Your task to perform on an android device: Open Chrome and go to settings Image 0: 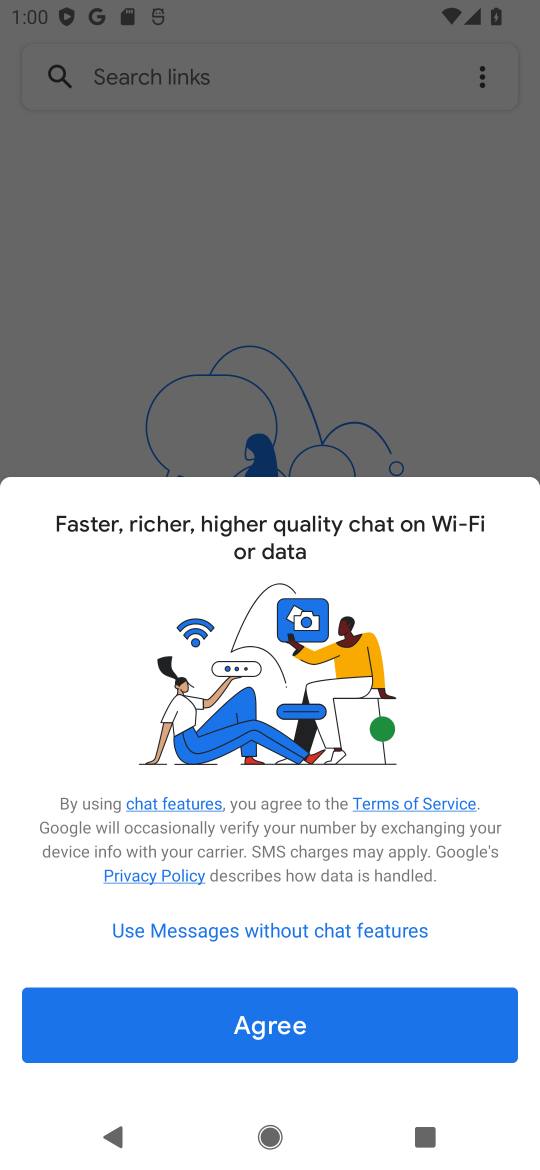
Step 0: press home button
Your task to perform on an android device: Open Chrome and go to settings Image 1: 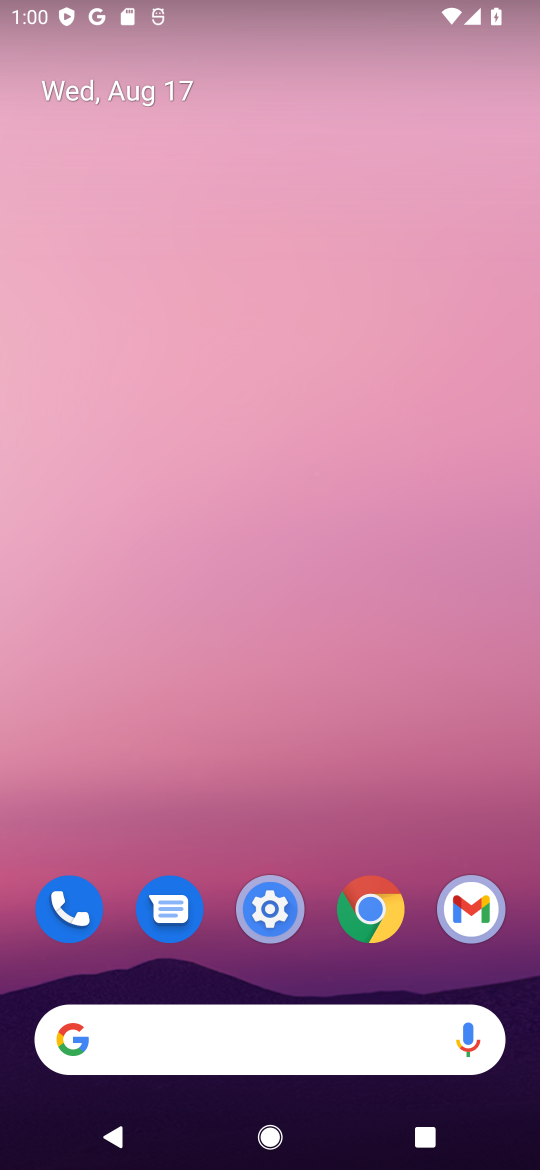
Step 1: click (368, 911)
Your task to perform on an android device: Open Chrome and go to settings Image 2: 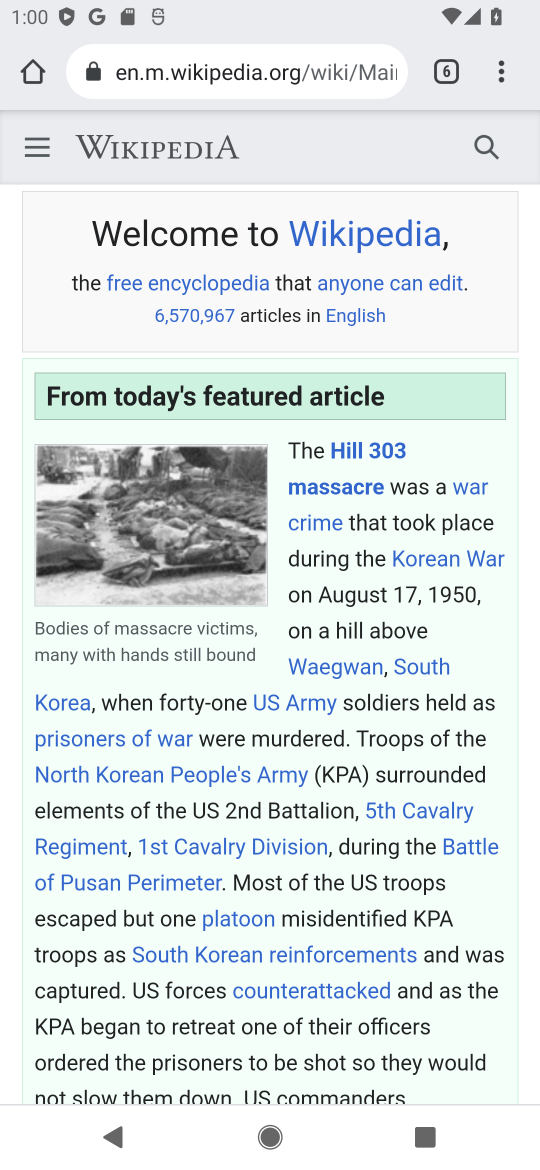
Step 2: click (496, 72)
Your task to perform on an android device: Open Chrome and go to settings Image 3: 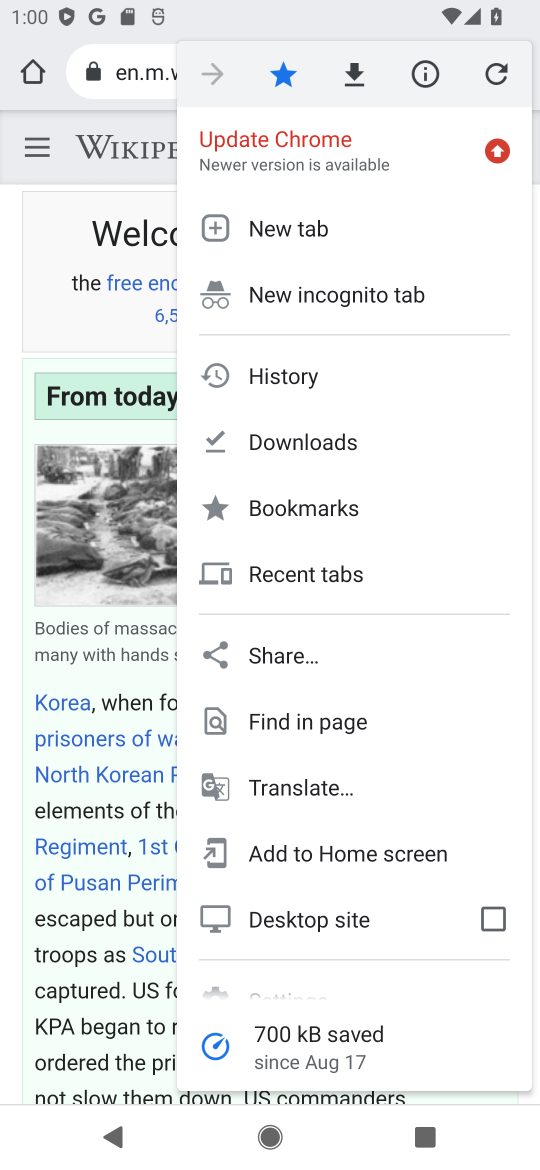
Step 3: drag from (390, 759) to (388, 309)
Your task to perform on an android device: Open Chrome and go to settings Image 4: 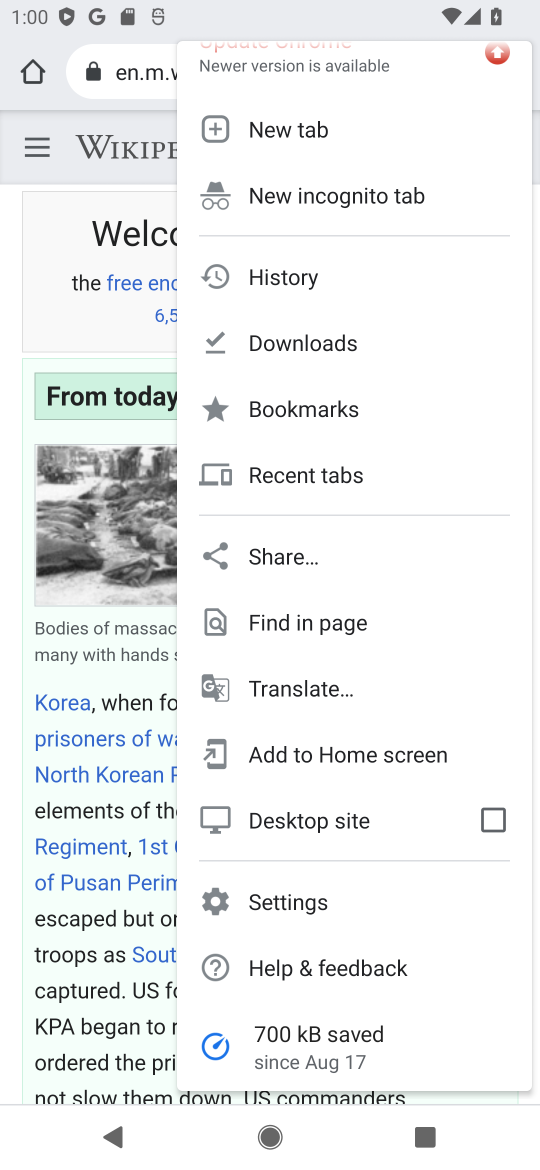
Step 4: click (280, 900)
Your task to perform on an android device: Open Chrome and go to settings Image 5: 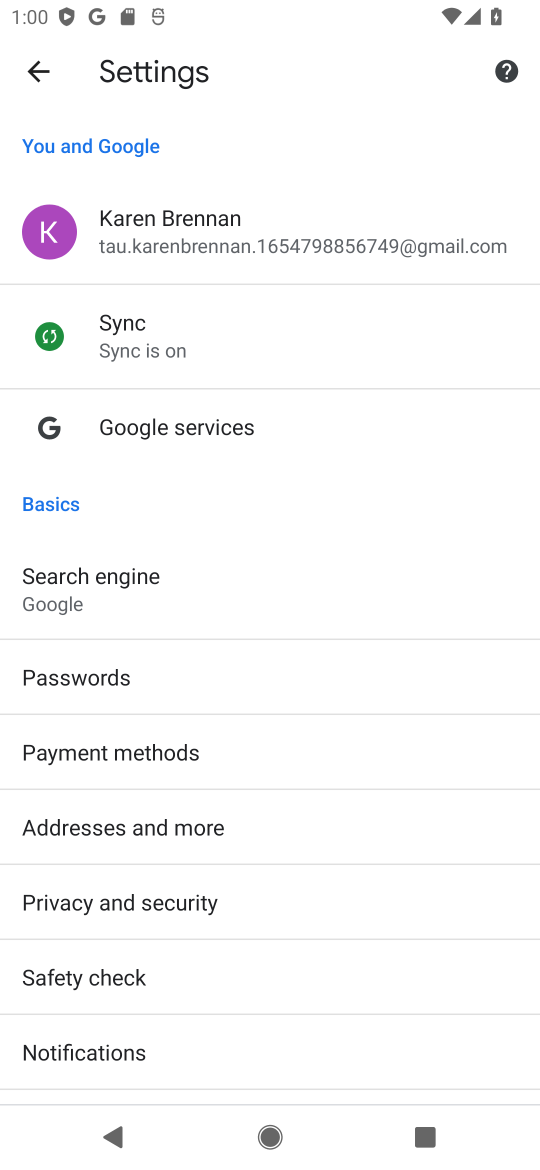
Step 5: task complete